Your task to perform on an android device: What is the news today? Image 0: 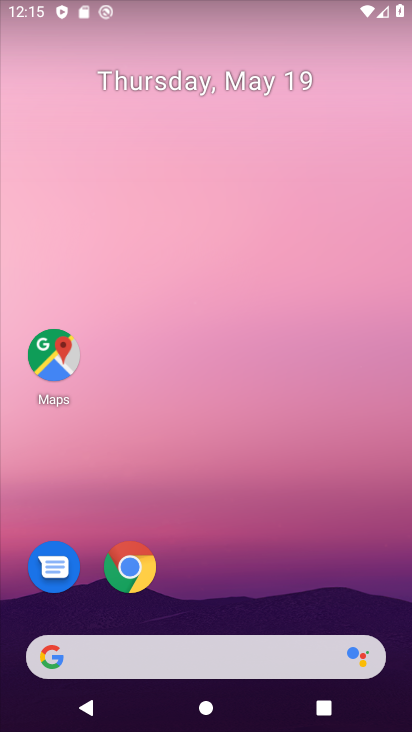
Step 0: drag from (266, 589) to (302, 175)
Your task to perform on an android device: What is the news today? Image 1: 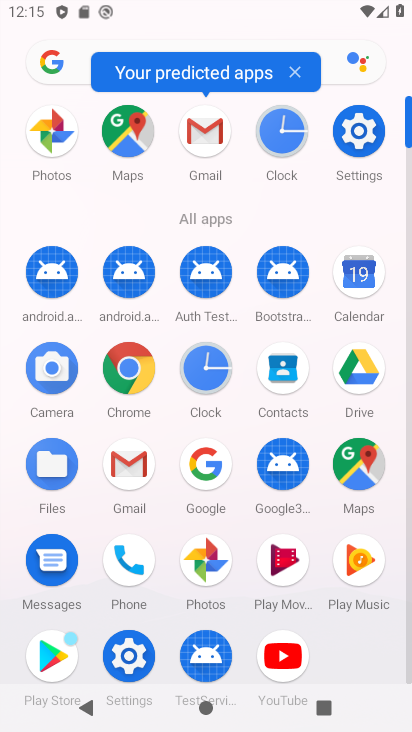
Step 1: click (220, 468)
Your task to perform on an android device: What is the news today? Image 2: 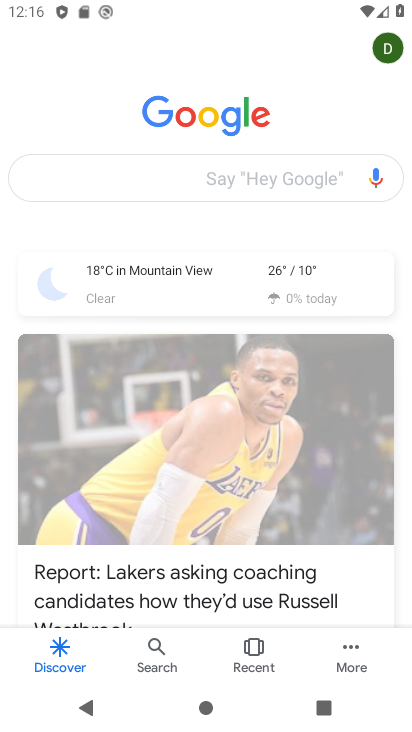
Step 2: drag from (194, 184) to (141, 184)
Your task to perform on an android device: What is the news today? Image 3: 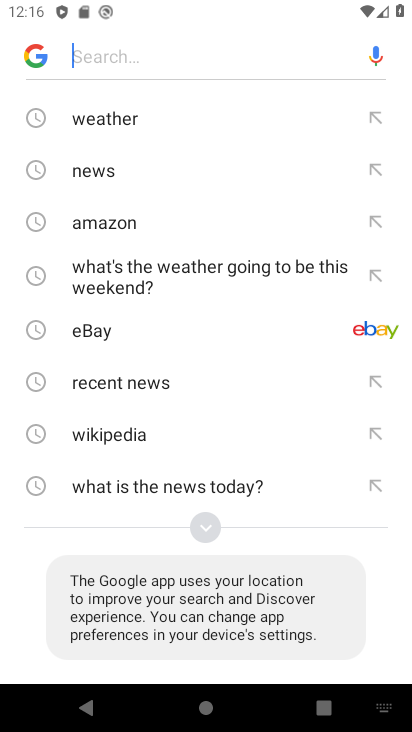
Step 3: click (130, 172)
Your task to perform on an android device: What is the news today? Image 4: 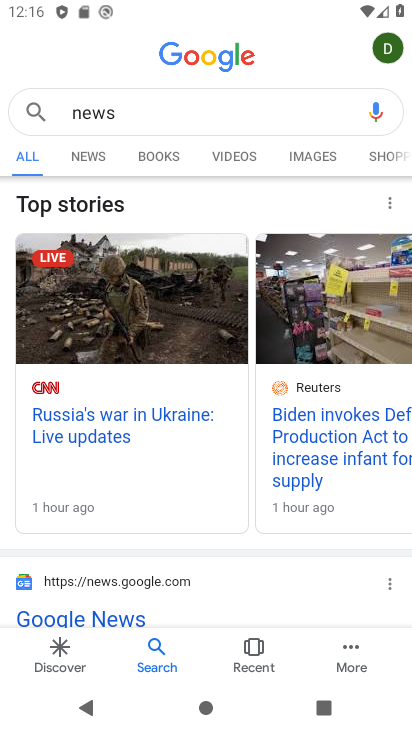
Step 4: task complete